Your task to perform on an android device: Find coffee shops on Maps Image 0: 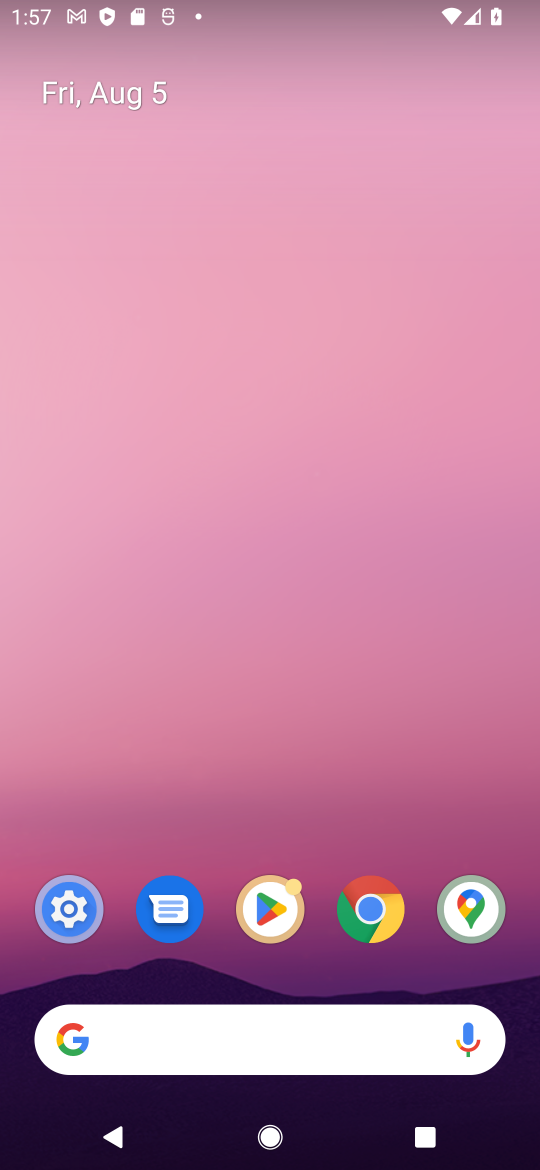
Step 0: click (485, 933)
Your task to perform on an android device: Find coffee shops on Maps Image 1: 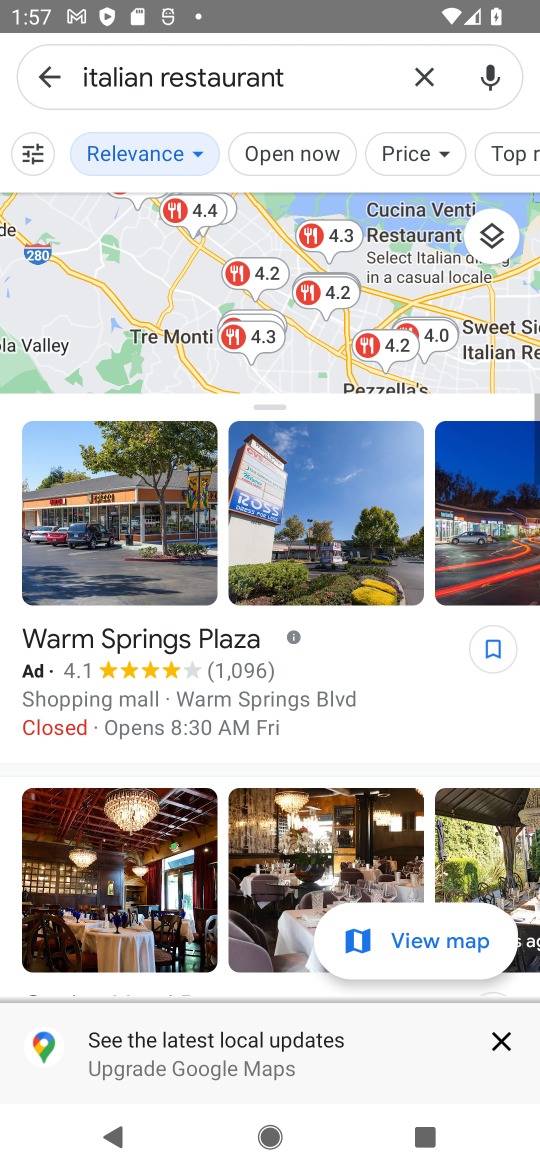
Step 1: click (473, 918)
Your task to perform on an android device: Find coffee shops on Maps Image 2: 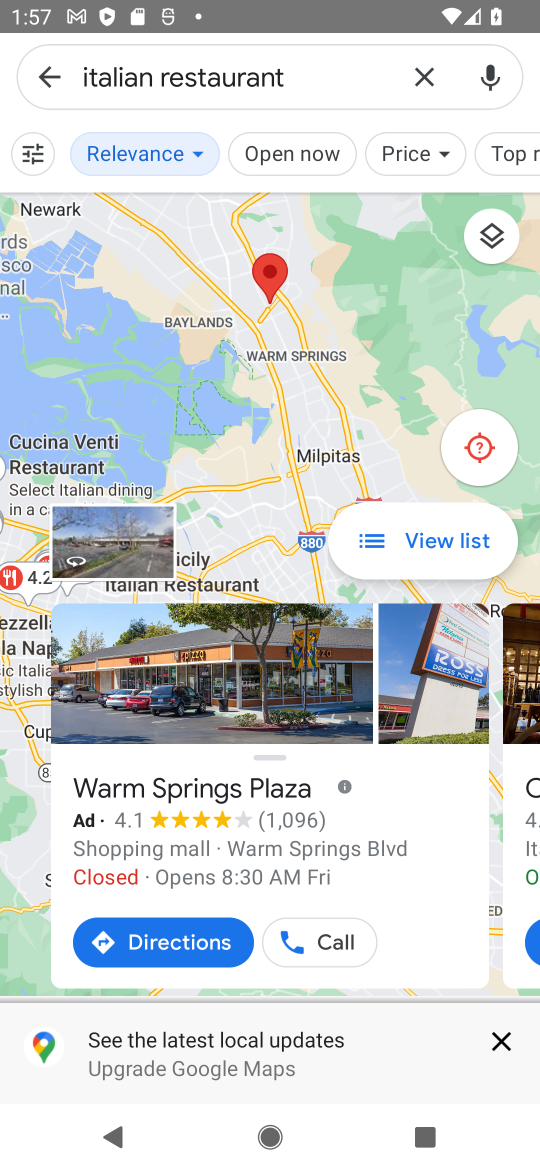
Step 2: click (421, 87)
Your task to perform on an android device: Find coffee shops on Maps Image 3: 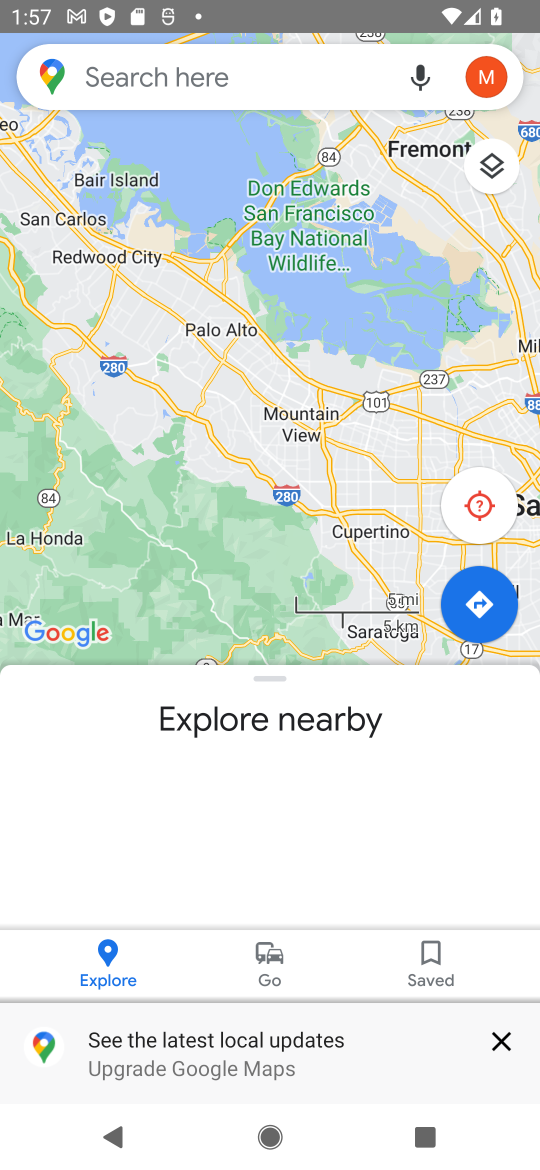
Step 3: click (333, 84)
Your task to perform on an android device: Find coffee shops on Maps Image 4: 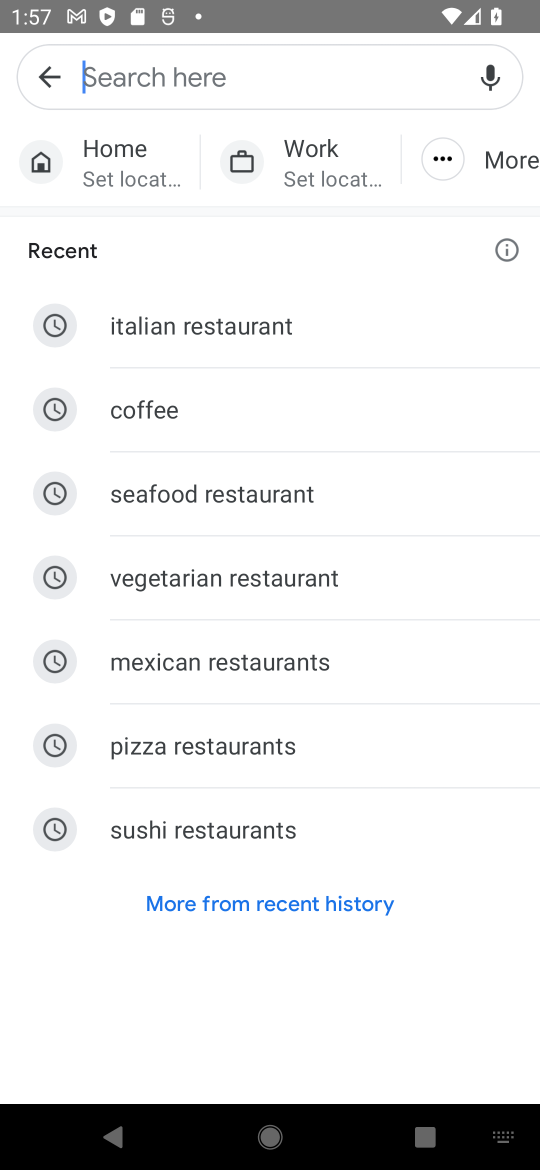
Step 4: click (187, 386)
Your task to perform on an android device: Find coffee shops on Maps Image 5: 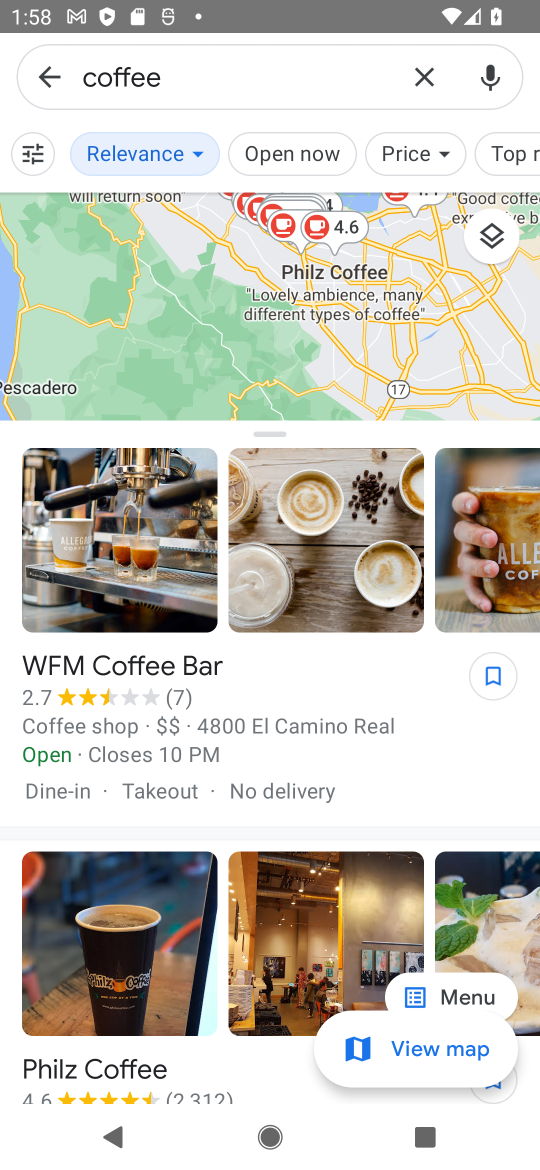
Step 5: task complete